Your task to perform on an android device: Open the phone app and click the voicemail tab. Image 0: 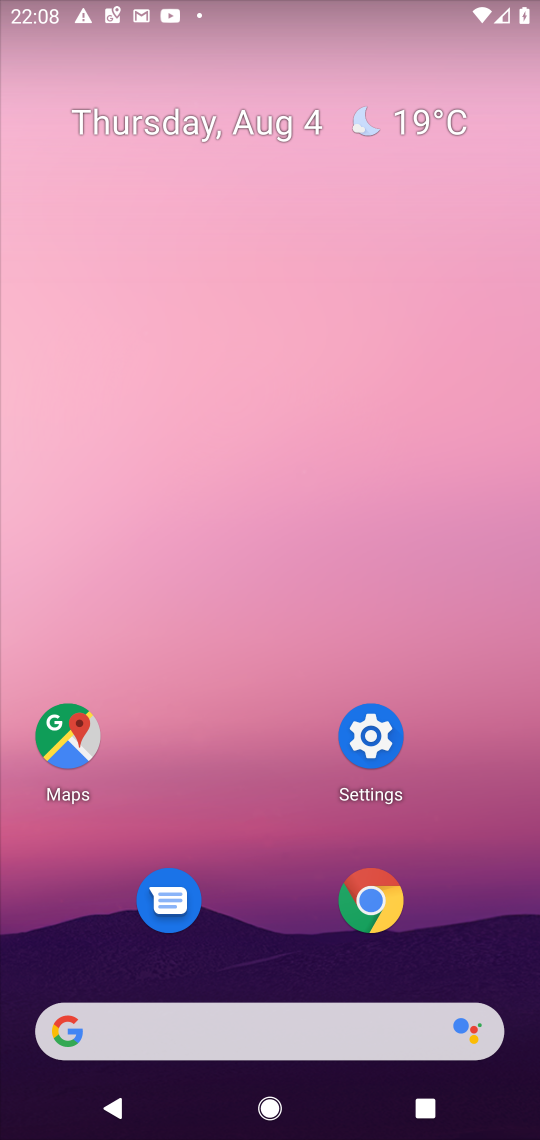
Step 0: drag from (303, 1013) to (414, 121)
Your task to perform on an android device: Open the phone app and click the voicemail tab. Image 1: 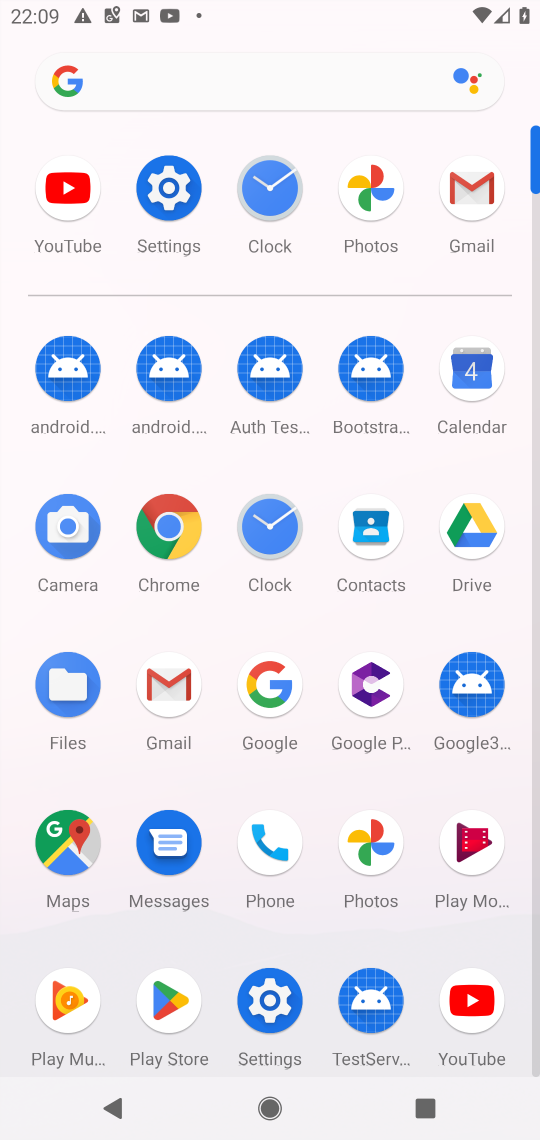
Step 1: click (278, 836)
Your task to perform on an android device: Open the phone app and click the voicemail tab. Image 2: 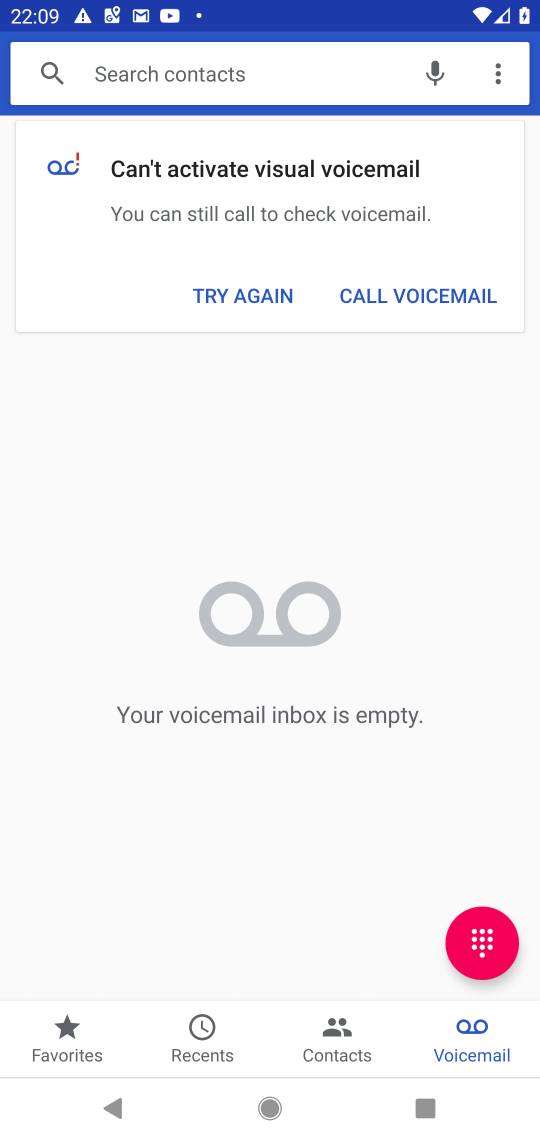
Step 2: click (478, 1053)
Your task to perform on an android device: Open the phone app and click the voicemail tab. Image 3: 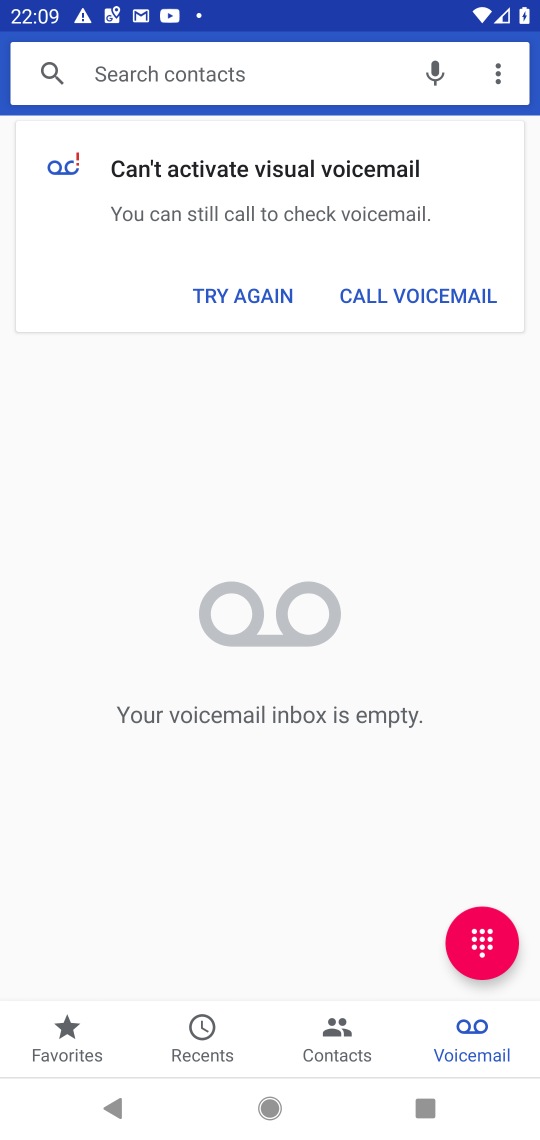
Step 3: task complete